Your task to perform on an android device: How much does a 2x4x8 board cost at Lowes? Image 0: 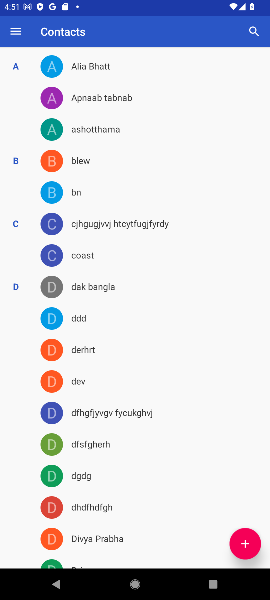
Step 0: press home button
Your task to perform on an android device: How much does a 2x4x8 board cost at Lowes? Image 1: 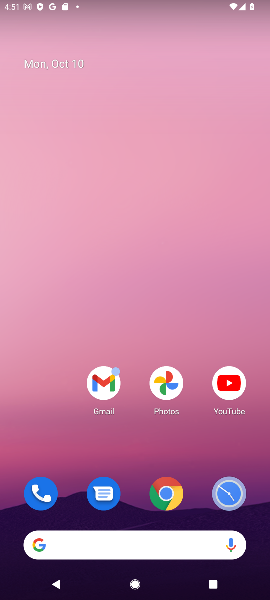
Step 1: click (118, 553)
Your task to perform on an android device: How much does a 2x4x8 board cost at Lowes? Image 2: 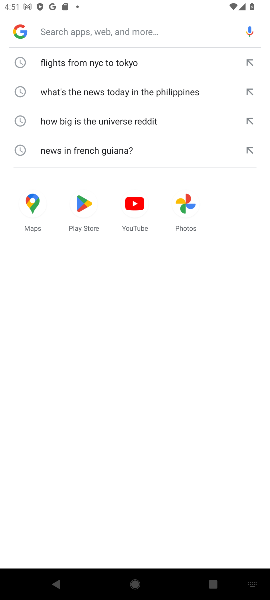
Step 2: type "How much does a 2x4x8 board cost at Lowes?"
Your task to perform on an android device: How much does a 2x4x8 board cost at Lowes? Image 3: 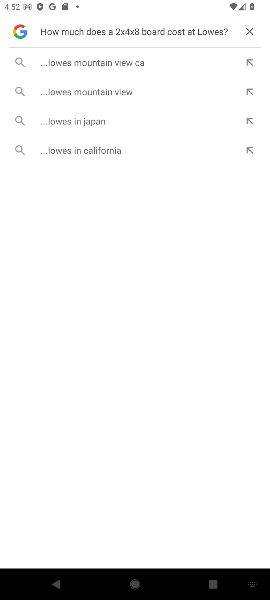
Step 3: click (194, 57)
Your task to perform on an android device: How much does a 2x4x8 board cost at Lowes? Image 4: 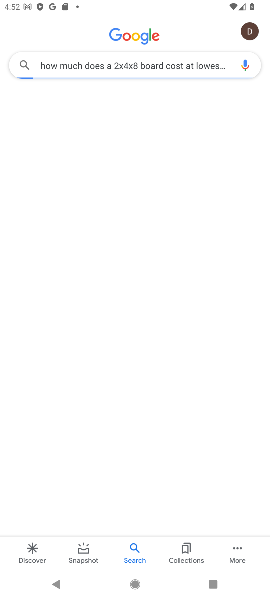
Step 4: task complete